Your task to perform on an android device: find which apps use the phone's location Image 0: 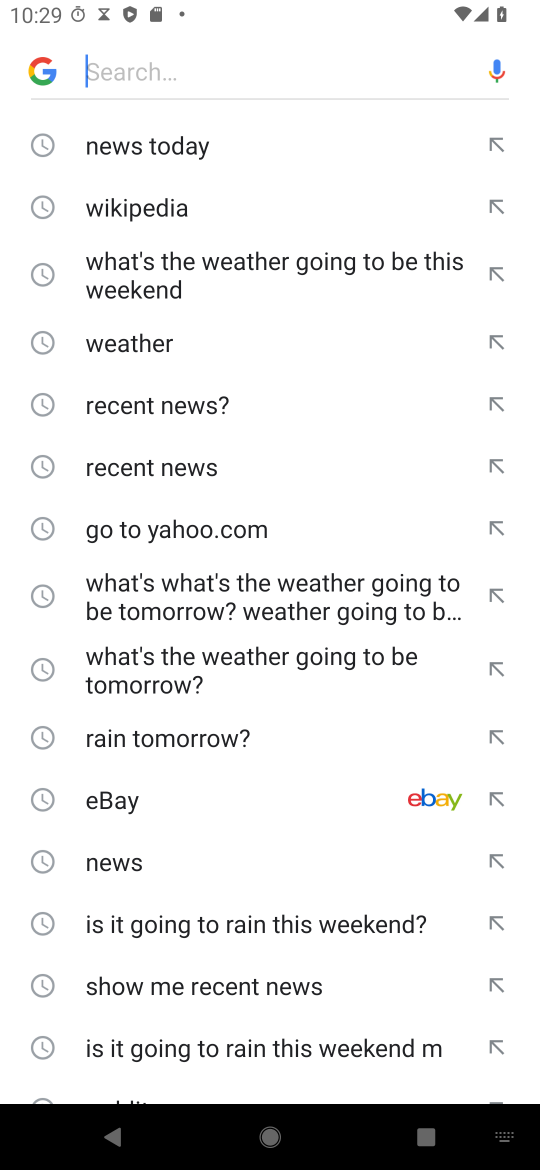
Step 0: press home button
Your task to perform on an android device: find which apps use the phone's location Image 1: 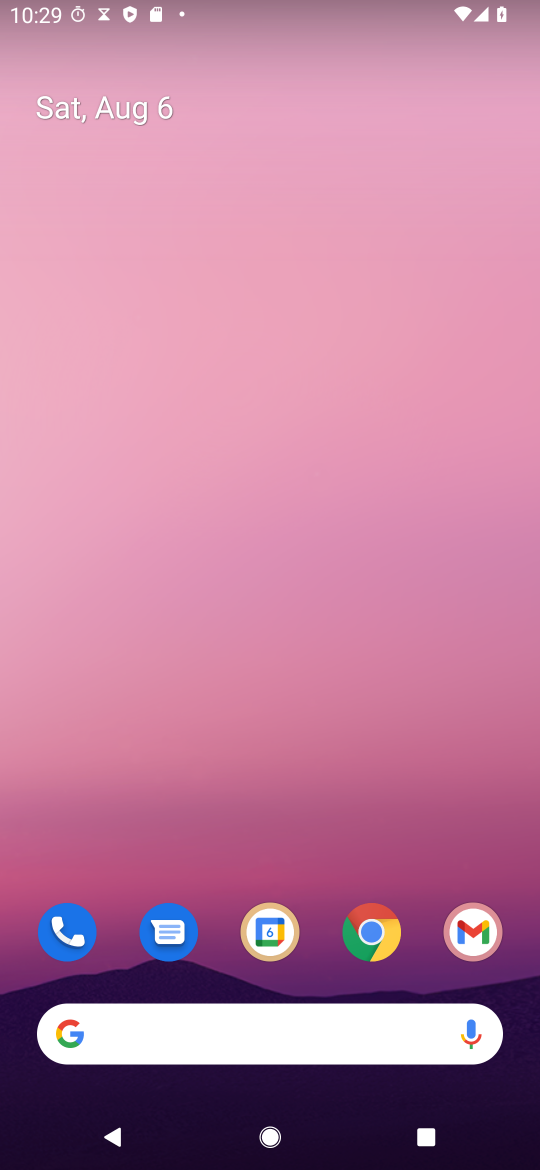
Step 1: drag from (189, 1050) to (310, 366)
Your task to perform on an android device: find which apps use the phone's location Image 2: 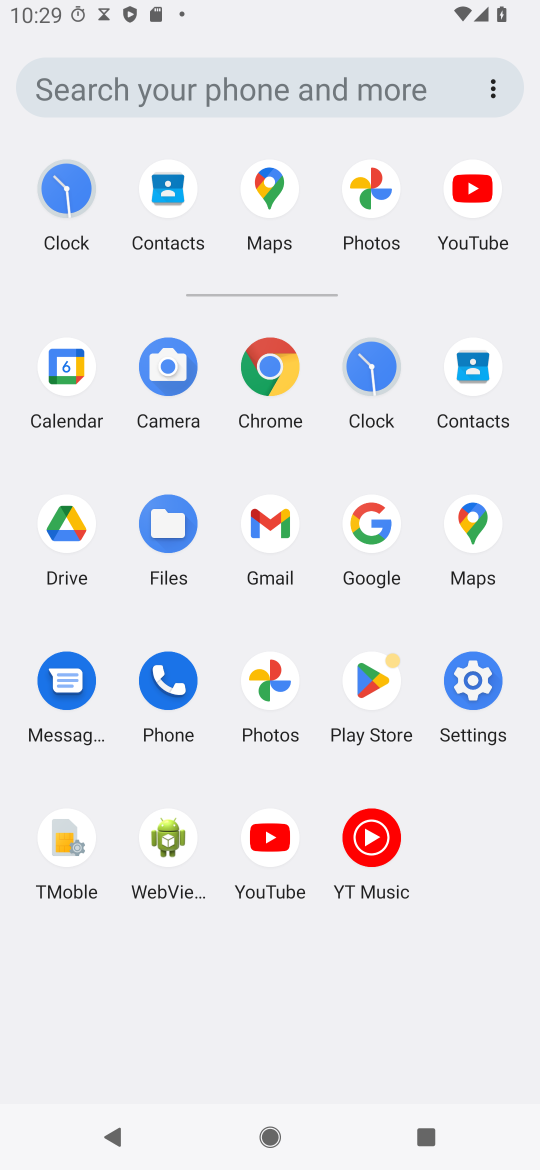
Step 2: click (470, 678)
Your task to perform on an android device: find which apps use the phone's location Image 3: 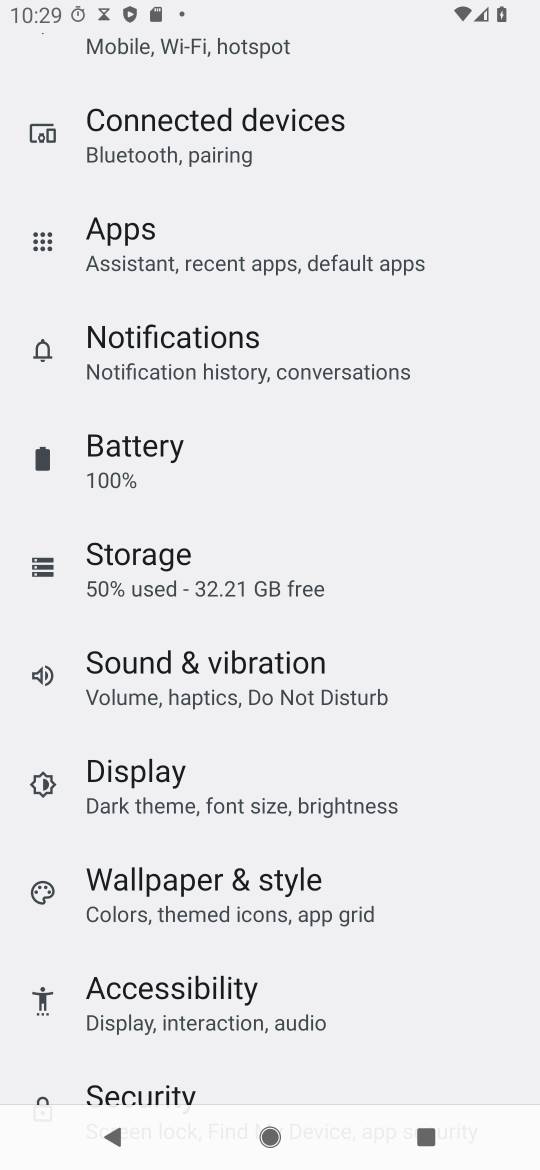
Step 3: drag from (216, 760) to (258, 628)
Your task to perform on an android device: find which apps use the phone's location Image 4: 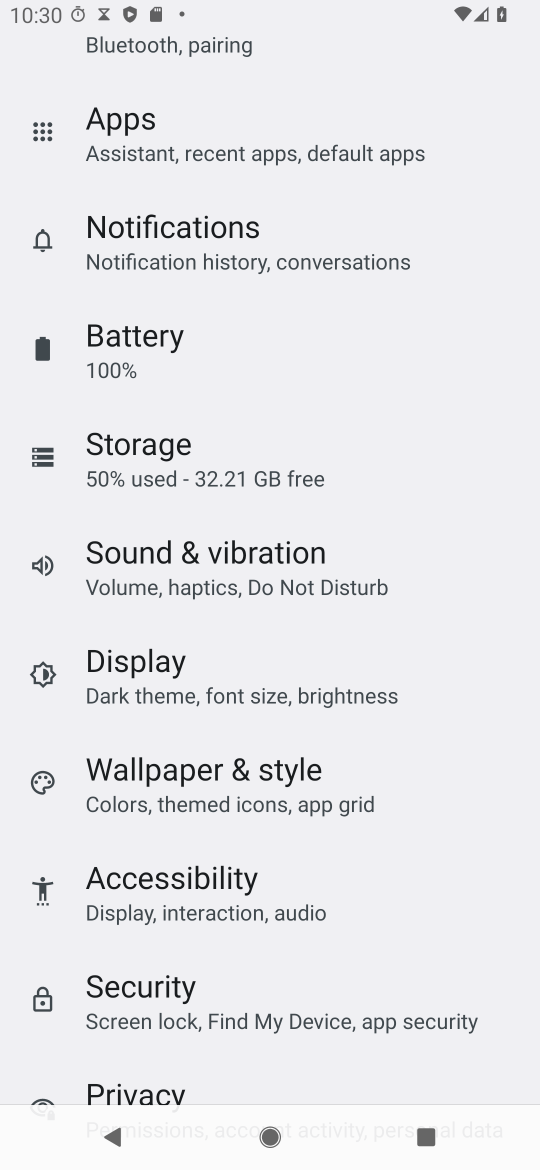
Step 4: drag from (133, 963) to (275, 720)
Your task to perform on an android device: find which apps use the phone's location Image 5: 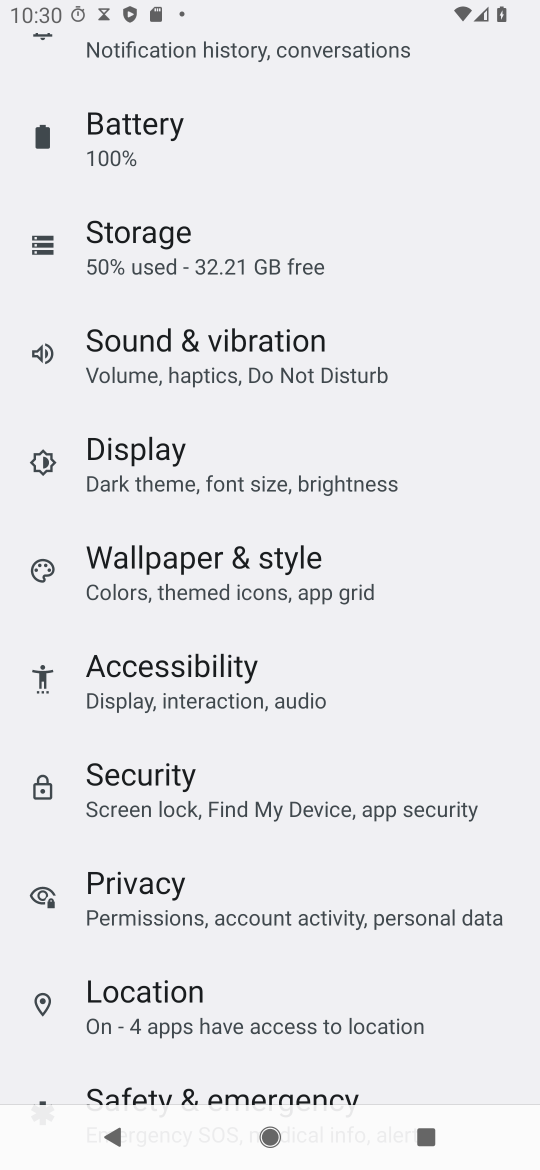
Step 5: click (201, 1002)
Your task to perform on an android device: find which apps use the phone's location Image 6: 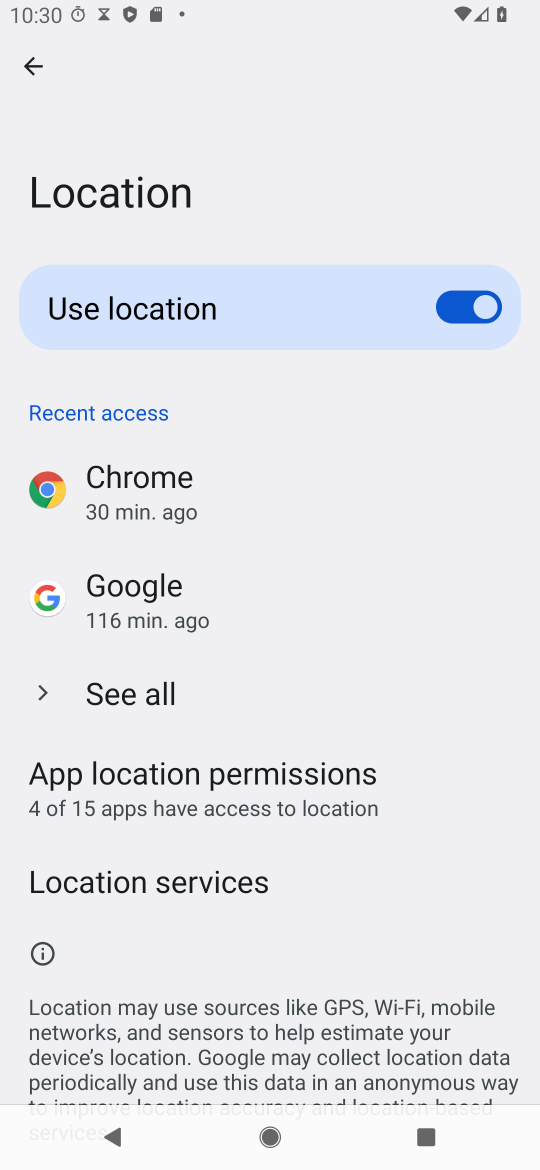
Step 6: click (243, 803)
Your task to perform on an android device: find which apps use the phone's location Image 7: 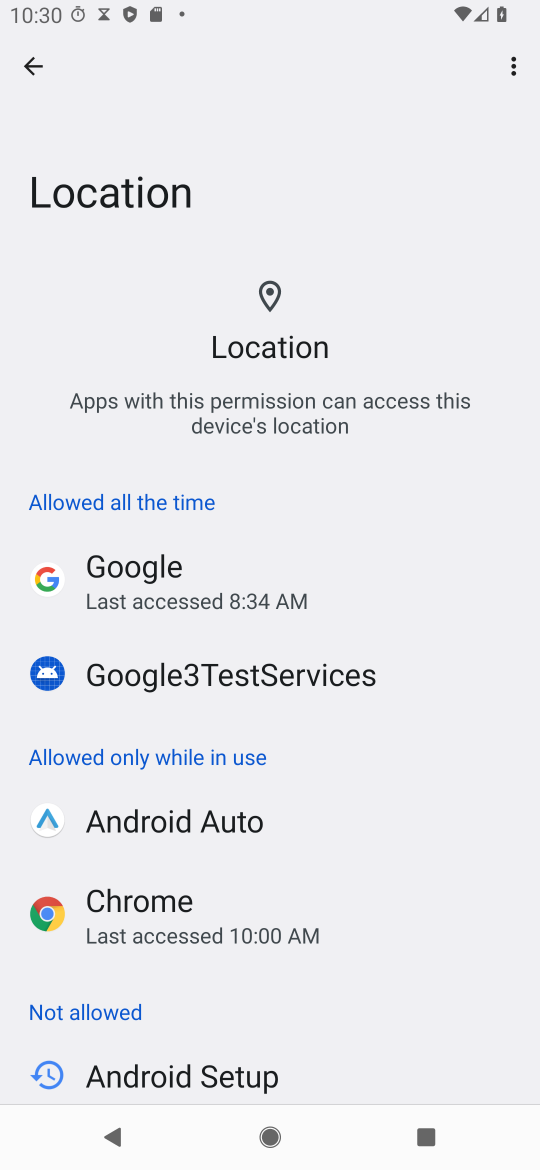
Step 7: drag from (178, 971) to (277, 713)
Your task to perform on an android device: find which apps use the phone's location Image 8: 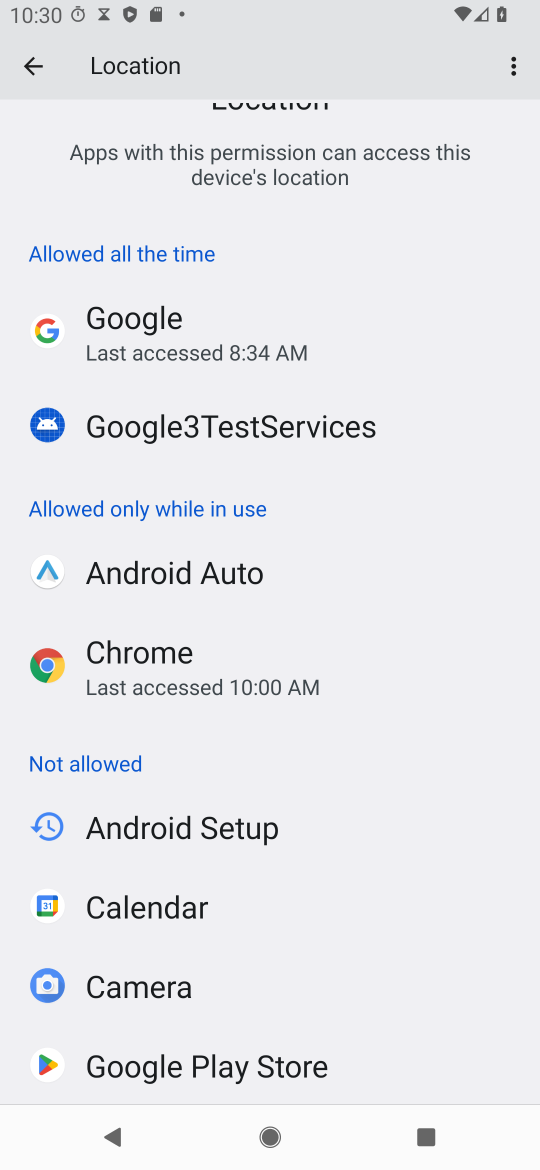
Step 8: drag from (201, 1022) to (324, 788)
Your task to perform on an android device: find which apps use the phone's location Image 9: 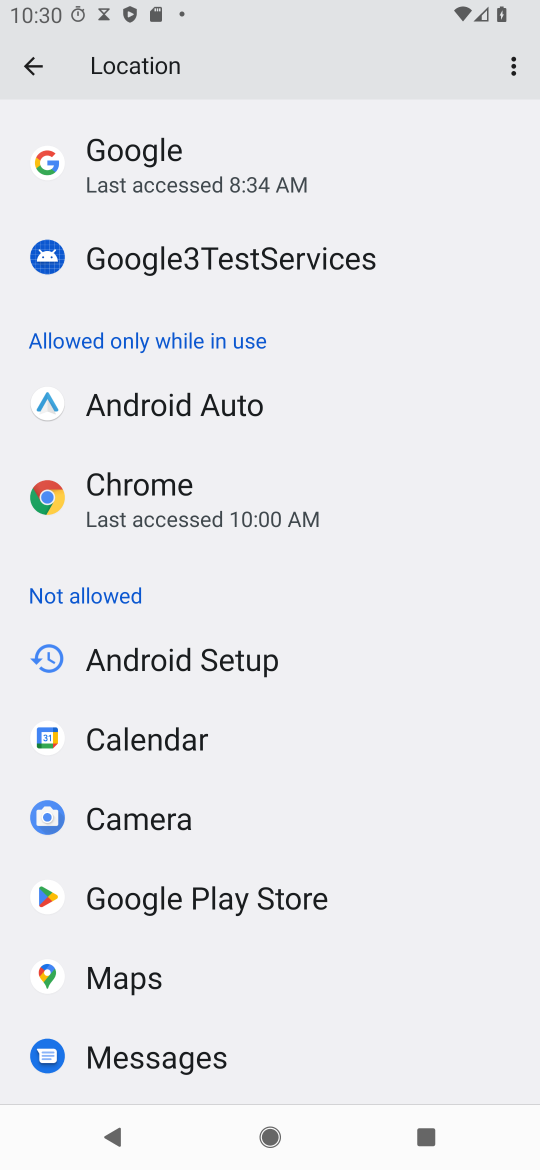
Step 9: click (142, 978)
Your task to perform on an android device: find which apps use the phone's location Image 10: 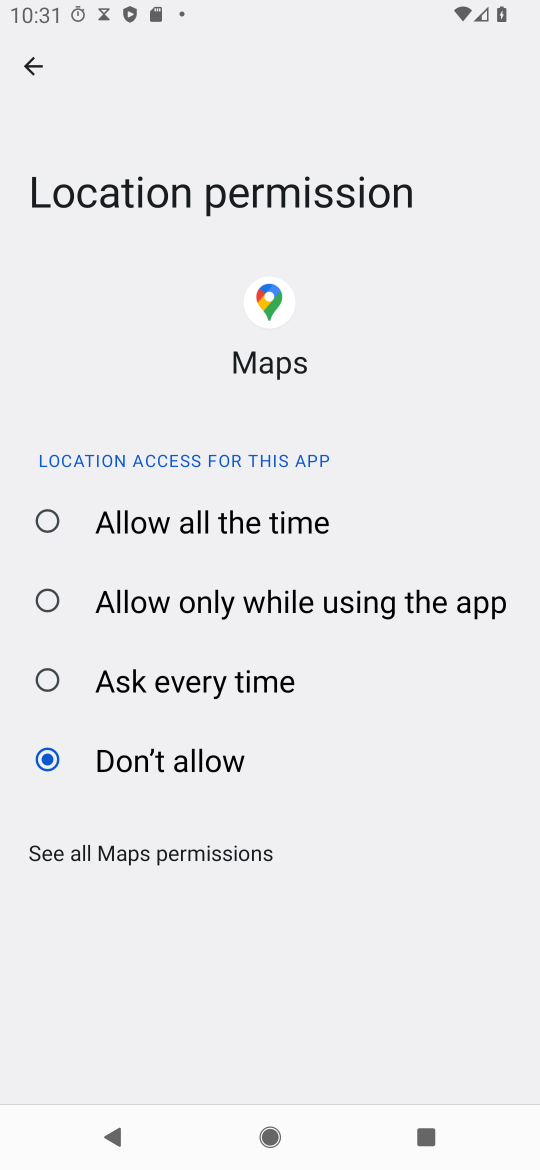
Step 10: click (55, 518)
Your task to perform on an android device: find which apps use the phone's location Image 11: 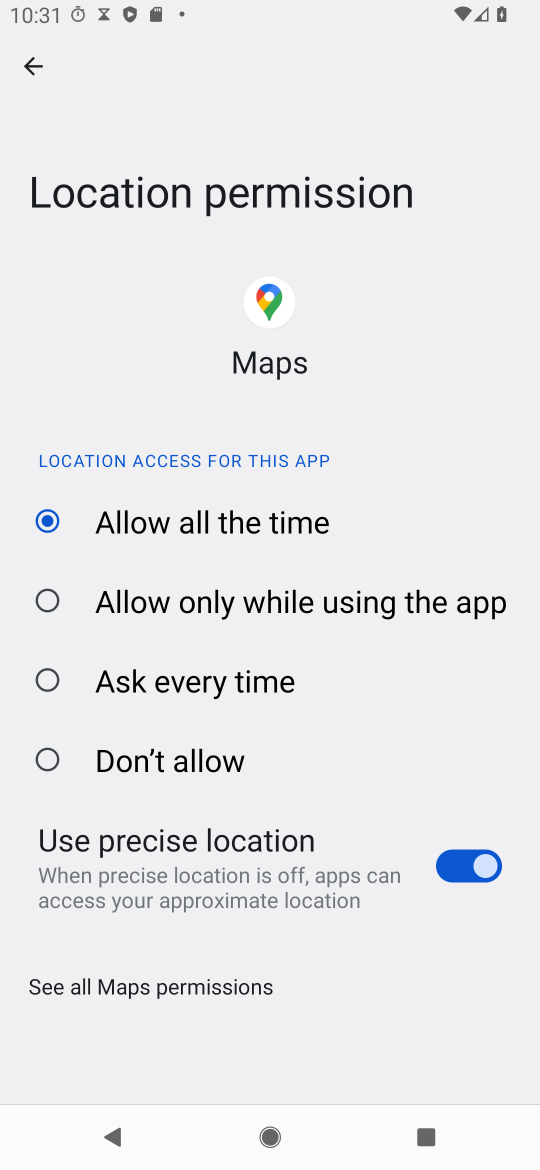
Step 11: task complete